Your task to perform on an android device: When is my next appointment? Image 0: 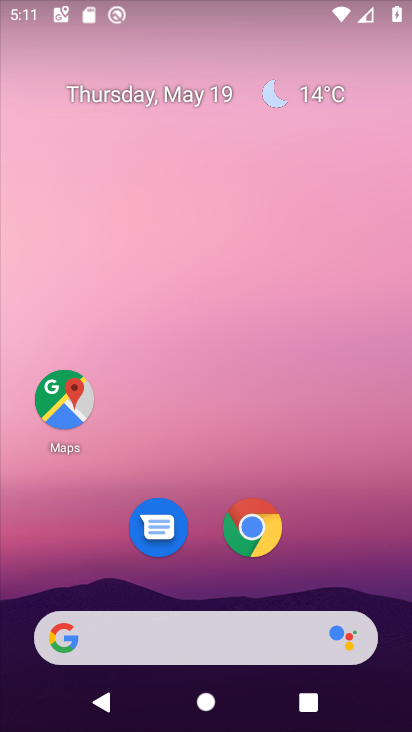
Step 0: drag from (330, 548) to (266, 125)
Your task to perform on an android device: When is my next appointment? Image 1: 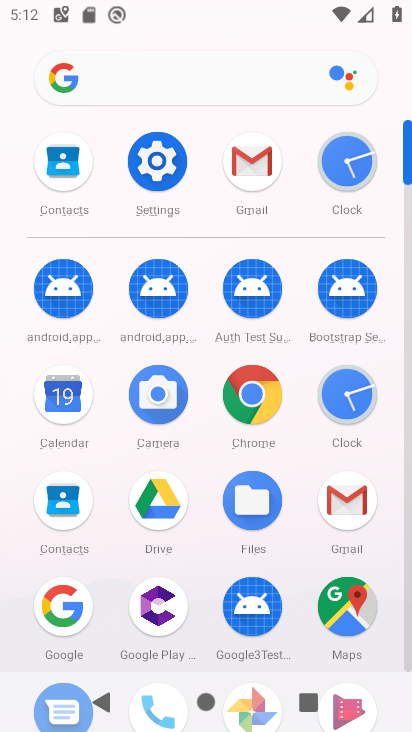
Step 1: click (56, 406)
Your task to perform on an android device: When is my next appointment? Image 2: 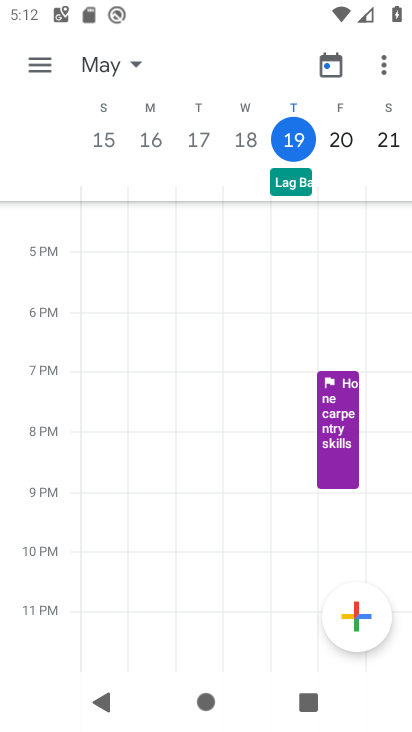
Step 2: task complete